Your task to perform on an android device: open a bookmark in the chrome app Image 0: 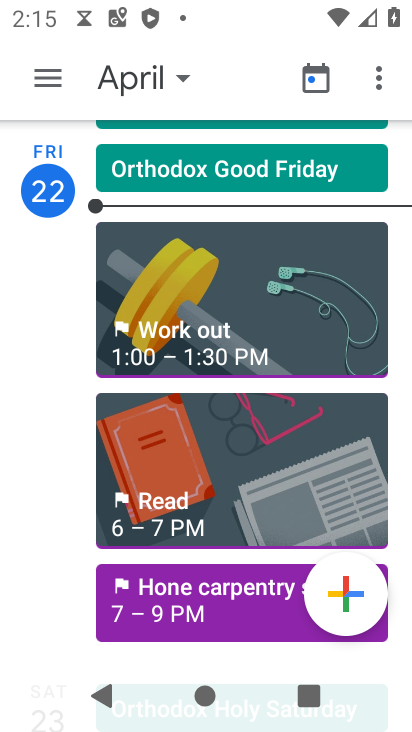
Step 0: press home button
Your task to perform on an android device: open a bookmark in the chrome app Image 1: 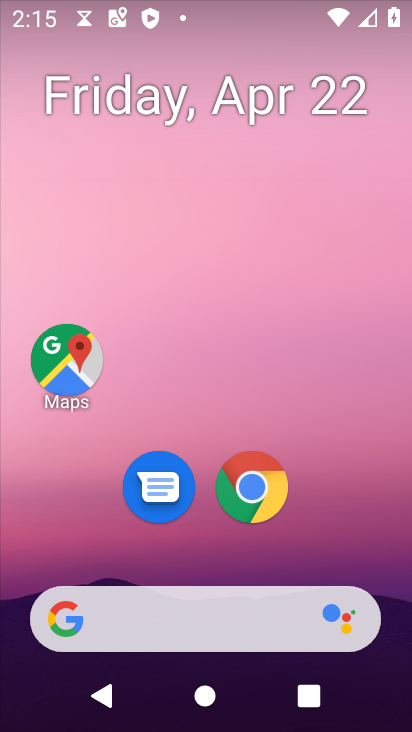
Step 1: drag from (151, 598) to (226, 0)
Your task to perform on an android device: open a bookmark in the chrome app Image 2: 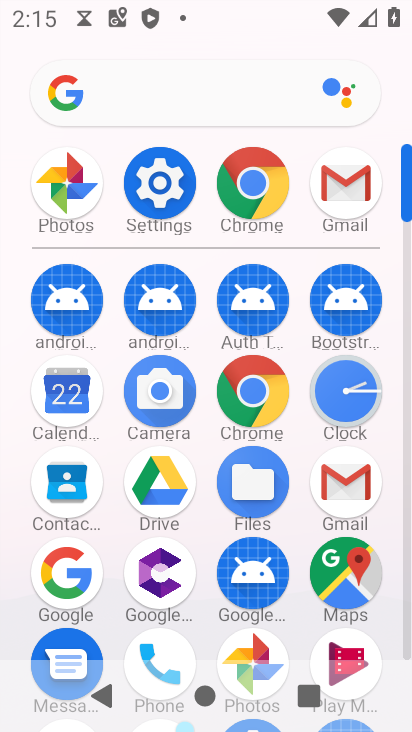
Step 2: click (258, 186)
Your task to perform on an android device: open a bookmark in the chrome app Image 3: 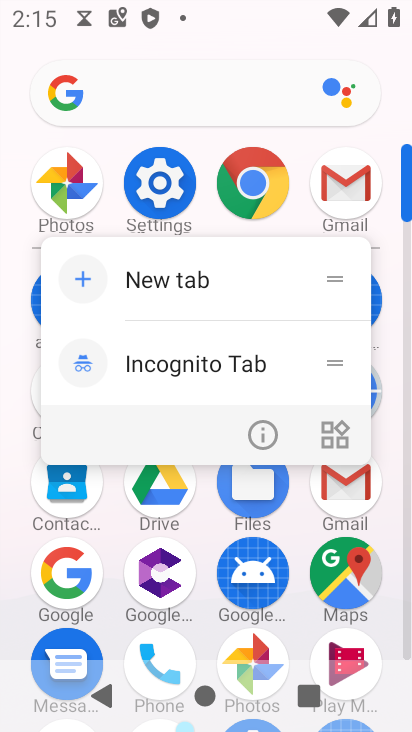
Step 3: click (252, 186)
Your task to perform on an android device: open a bookmark in the chrome app Image 4: 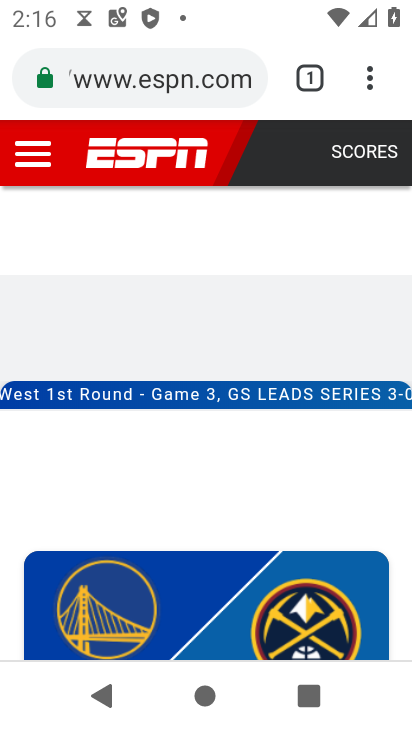
Step 4: drag from (369, 77) to (118, 293)
Your task to perform on an android device: open a bookmark in the chrome app Image 5: 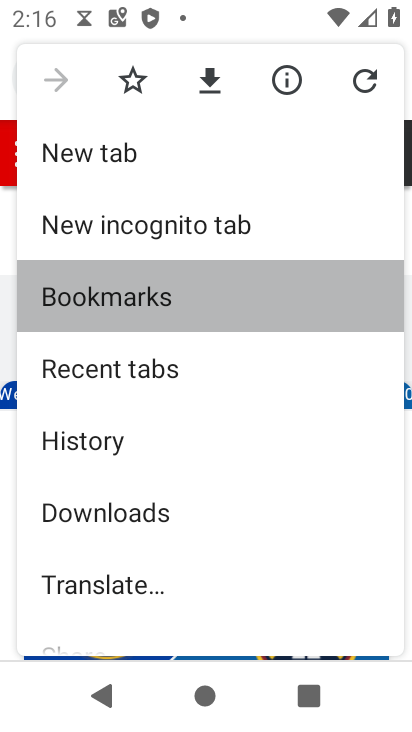
Step 5: click (118, 292)
Your task to perform on an android device: open a bookmark in the chrome app Image 6: 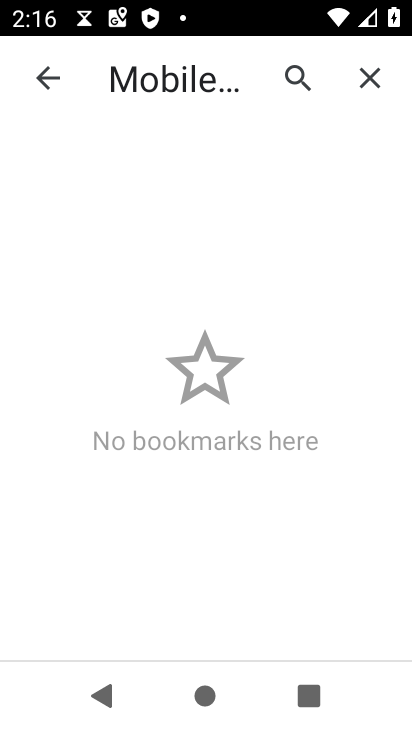
Step 6: task complete